Your task to perform on an android device: open chrome privacy settings Image 0: 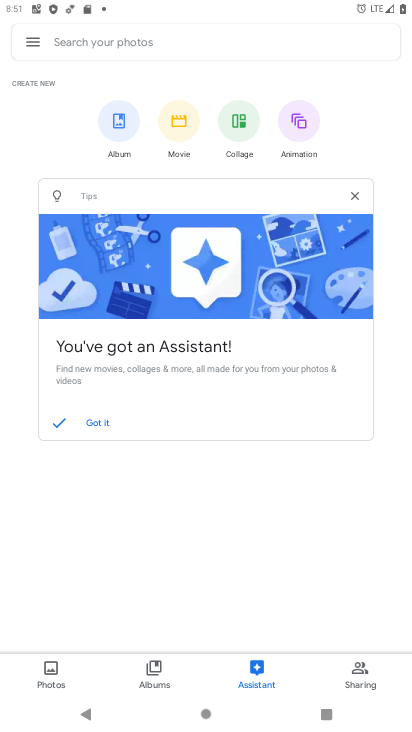
Step 0: press home button
Your task to perform on an android device: open chrome privacy settings Image 1: 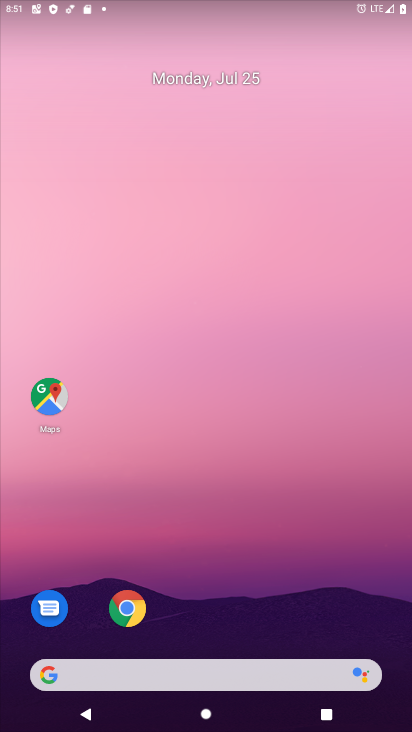
Step 1: drag from (236, 691) to (172, 101)
Your task to perform on an android device: open chrome privacy settings Image 2: 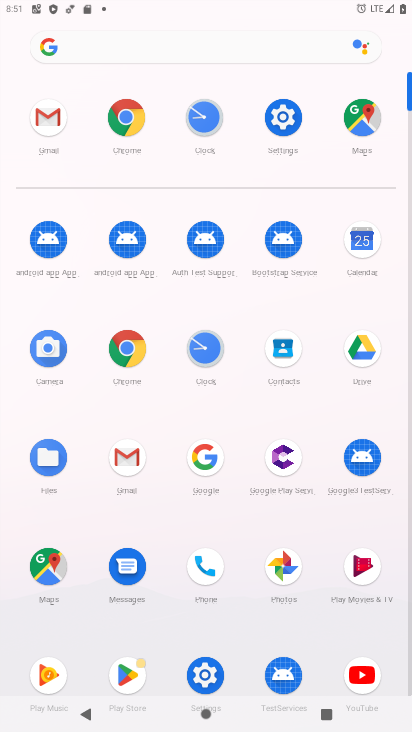
Step 2: click (124, 118)
Your task to perform on an android device: open chrome privacy settings Image 3: 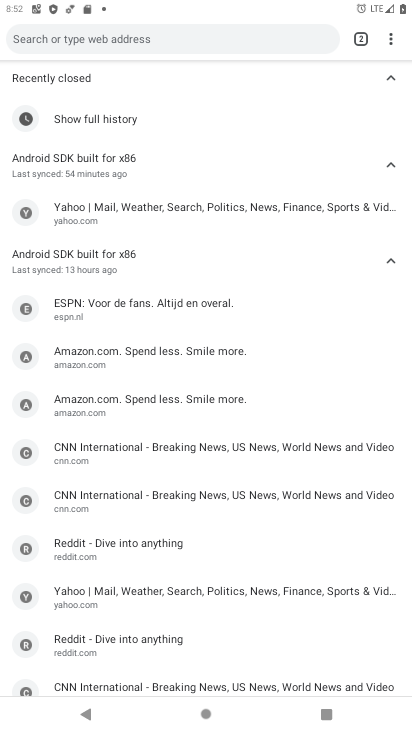
Step 3: click (390, 39)
Your task to perform on an android device: open chrome privacy settings Image 4: 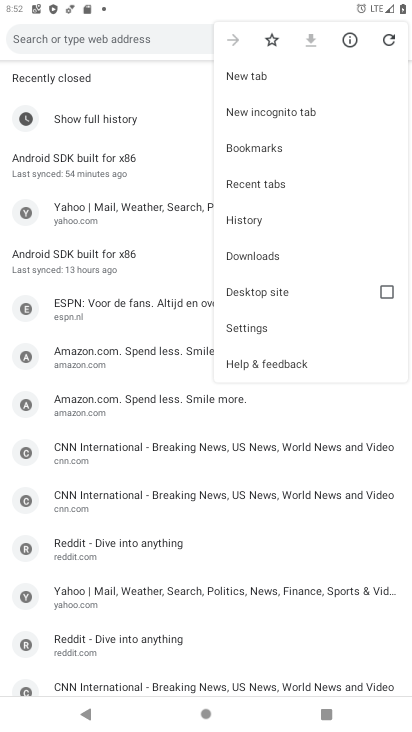
Step 4: click (235, 322)
Your task to perform on an android device: open chrome privacy settings Image 5: 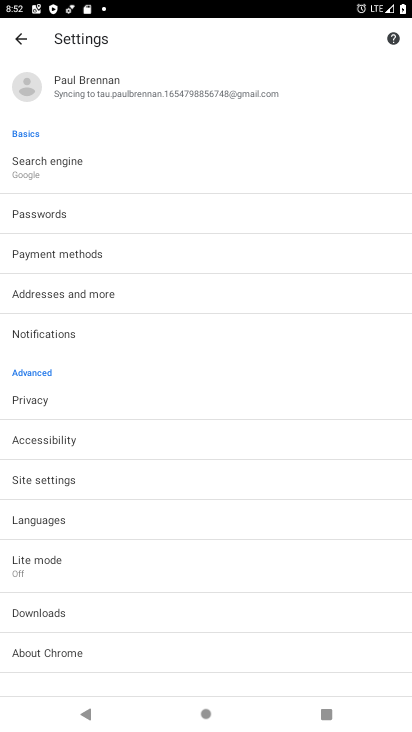
Step 5: click (20, 397)
Your task to perform on an android device: open chrome privacy settings Image 6: 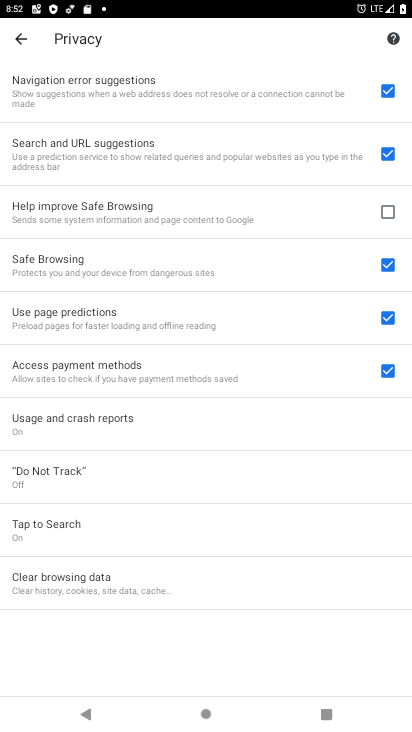
Step 6: task complete